Your task to perform on an android device: Search for vegetarian restaurants on Maps Image 0: 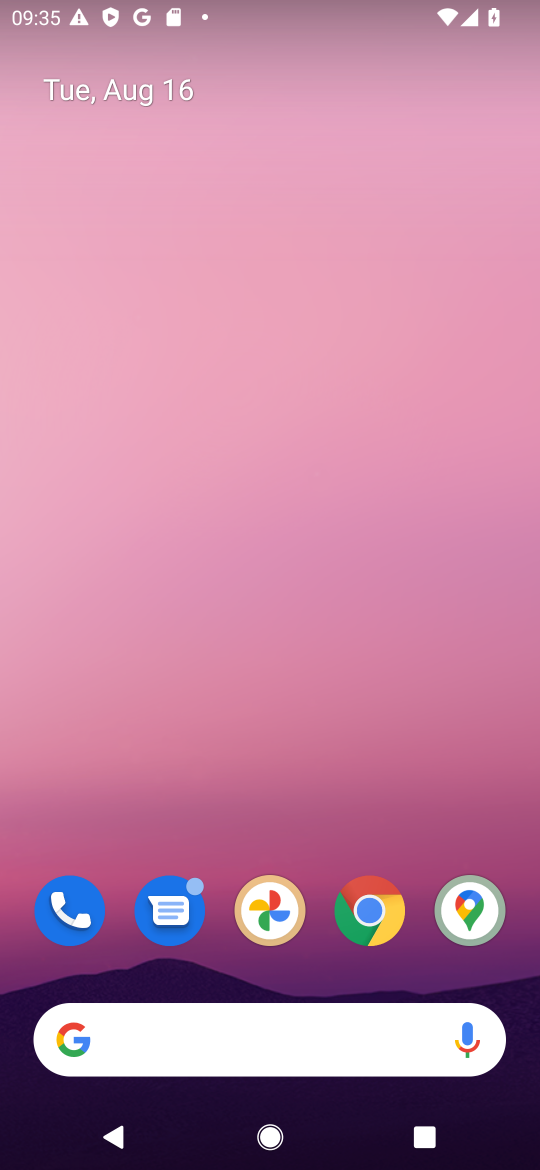
Step 0: drag from (290, 782) to (320, 0)
Your task to perform on an android device: Search for vegetarian restaurants on Maps Image 1: 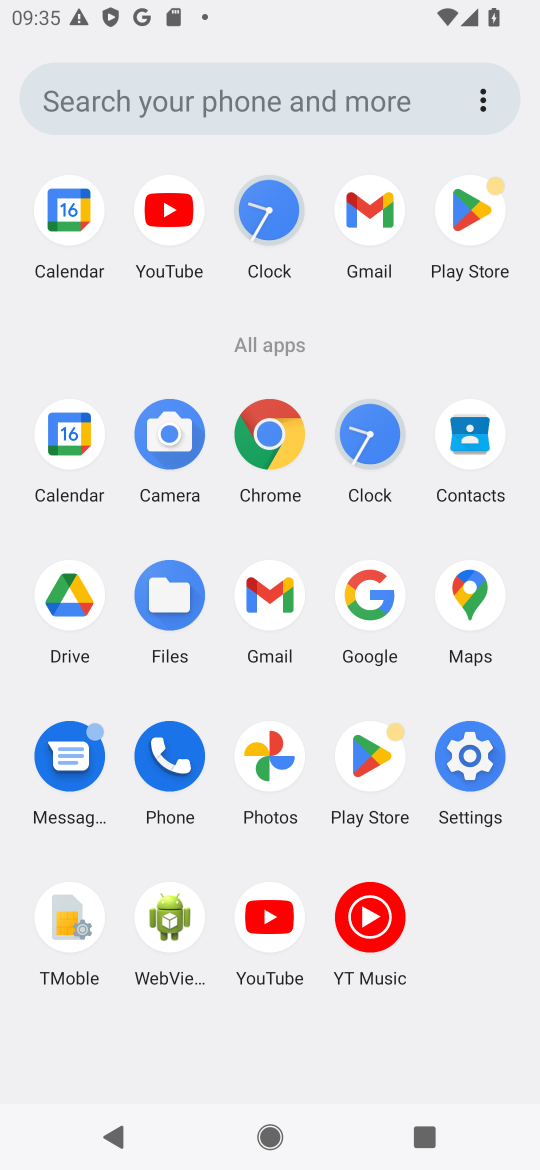
Step 1: click (471, 586)
Your task to perform on an android device: Search for vegetarian restaurants on Maps Image 2: 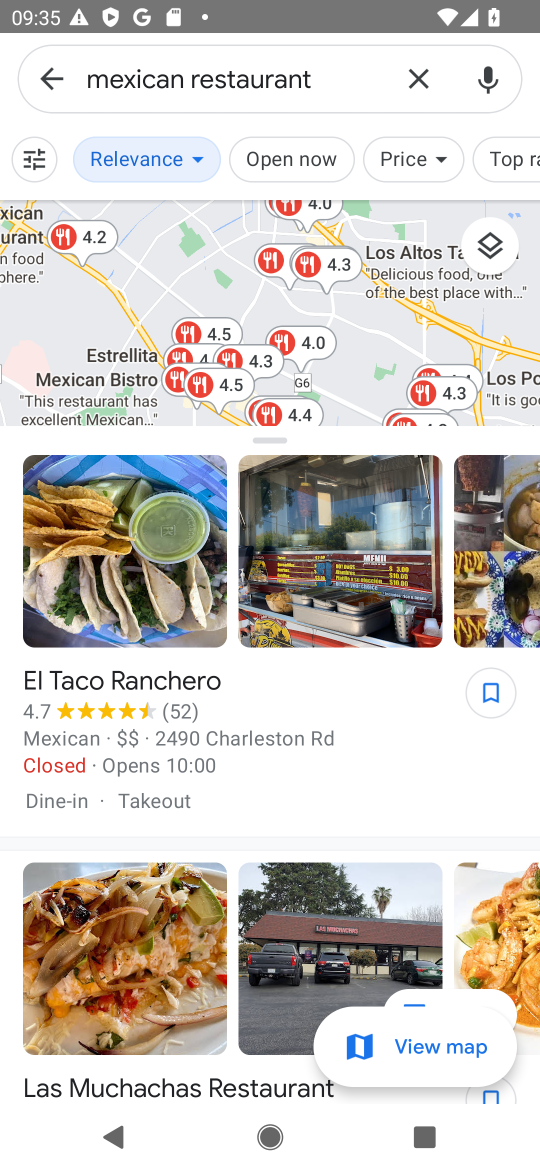
Step 2: click (416, 74)
Your task to perform on an android device: Search for vegetarian restaurants on Maps Image 3: 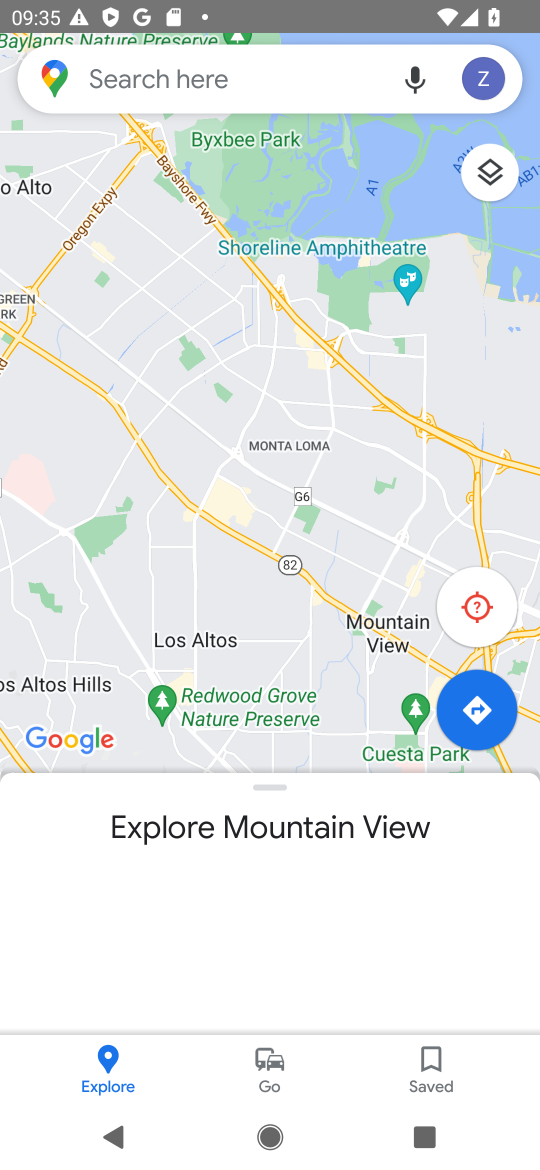
Step 3: click (285, 67)
Your task to perform on an android device: Search for vegetarian restaurants on Maps Image 4: 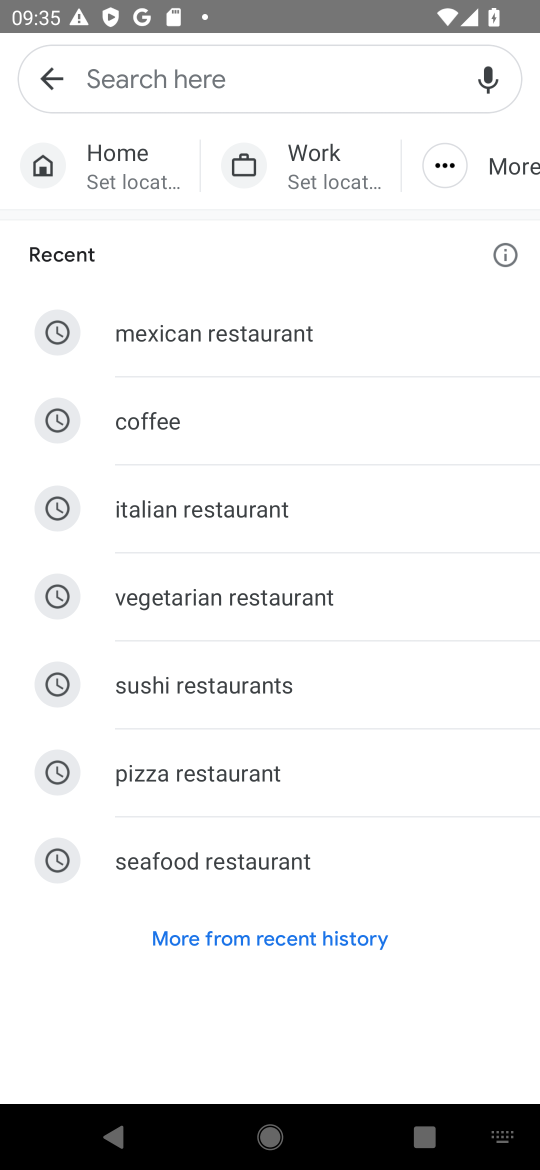
Step 4: click (220, 585)
Your task to perform on an android device: Search for vegetarian restaurants on Maps Image 5: 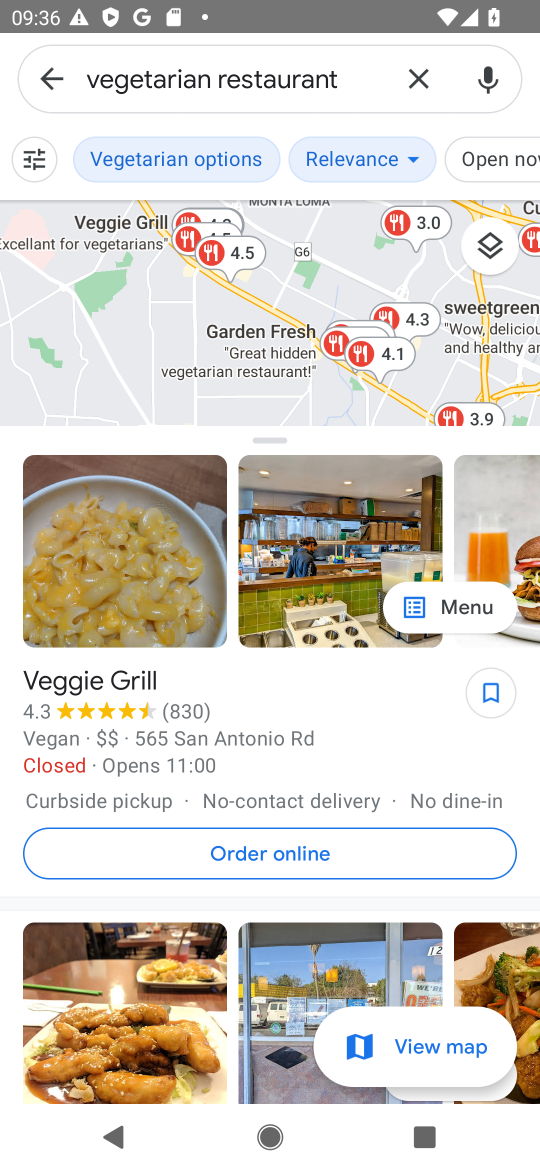
Step 5: task complete